Your task to perform on an android device: What's the weather? Image 0: 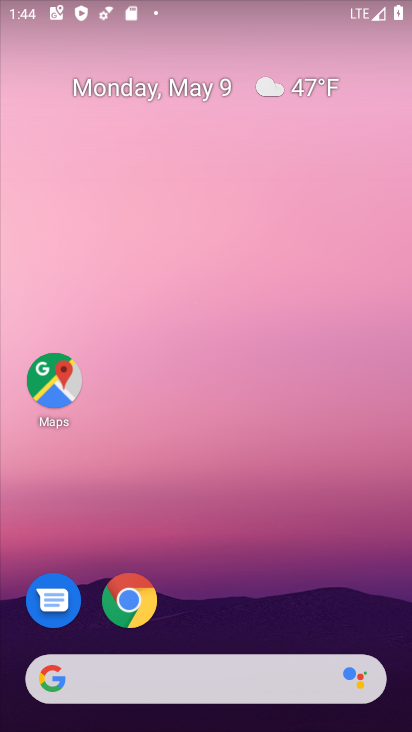
Step 0: drag from (222, 80) to (245, 8)
Your task to perform on an android device: What's the weather? Image 1: 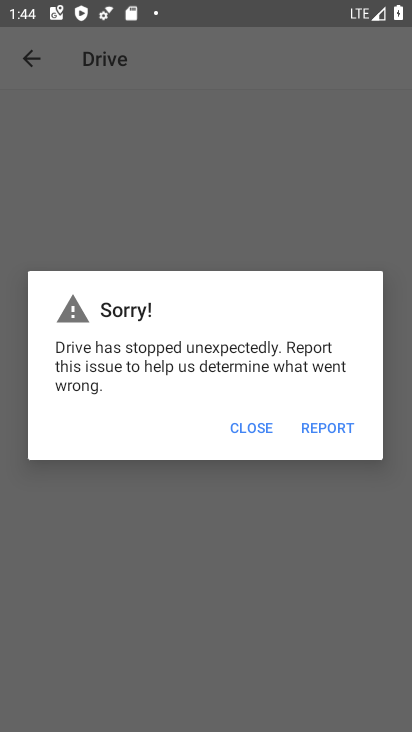
Step 1: press home button
Your task to perform on an android device: What's the weather? Image 2: 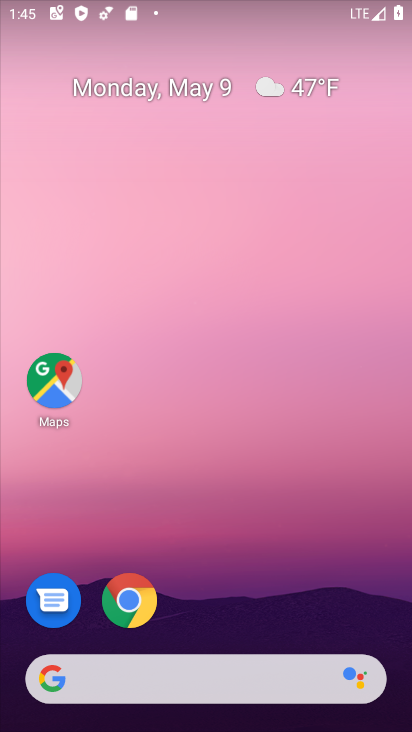
Step 2: click (305, 92)
Your task to perform on an android device: What's the weather? Image 3: 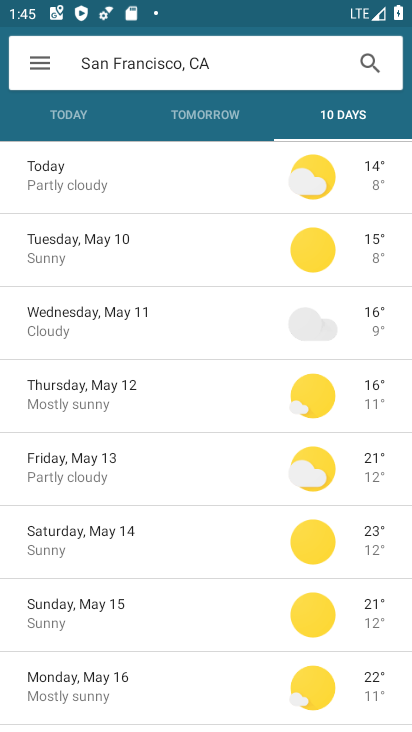
Step 3: click (73, 111)
Your task to perform on an android device: What's the weather? Image 4: 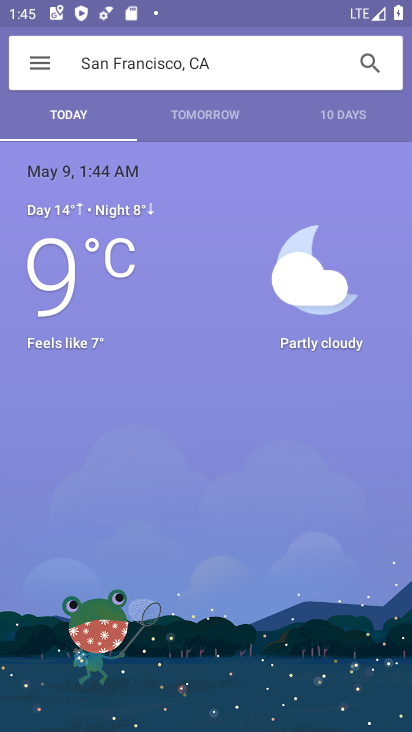
Step 4: task complete